Your task to perform on an android device: change keyboard looks Image 0: 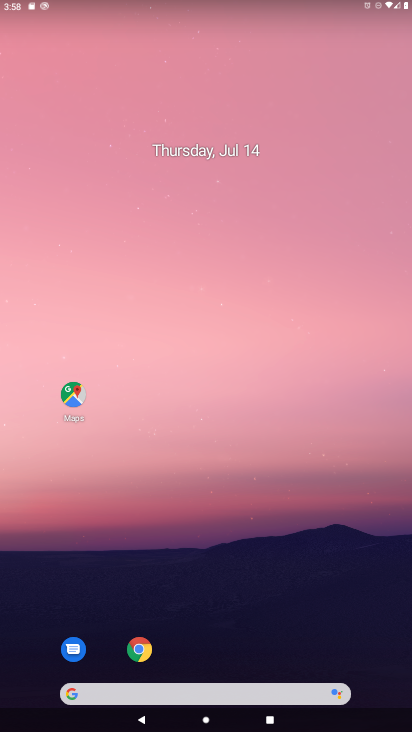
Step 0: drag from (242, 619) to (242, 162)
Your task to perform on an android device: change keyboard looks Image 1: 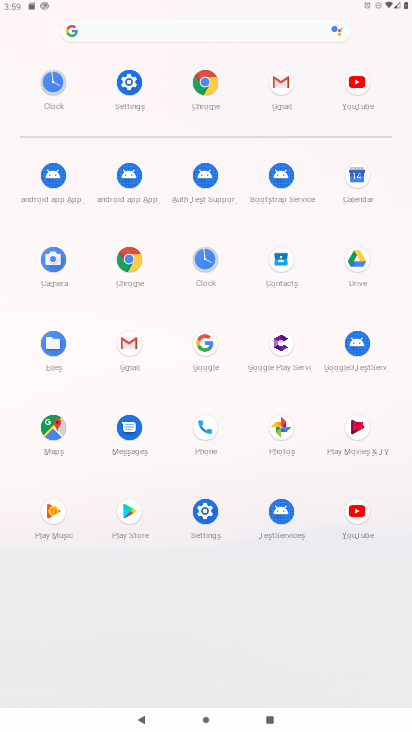
Step 1: click (204, 524)
Your task to perform on an android device: change keyboard looks Image 2: 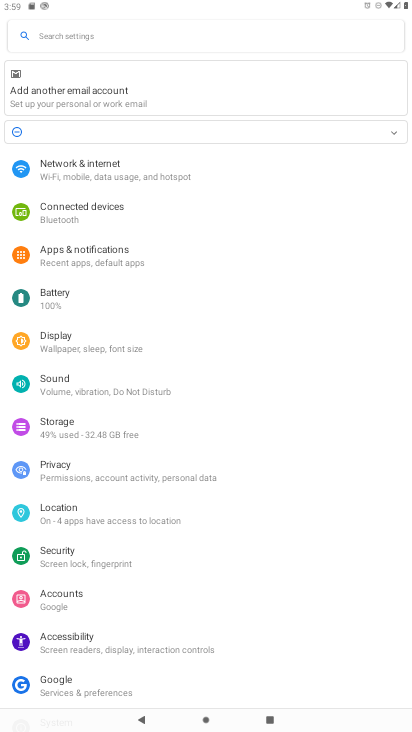
Step 2: drag from (85, 603) to (142, 320)
Your task to perform on an android device: change keyboard looks Image 3: 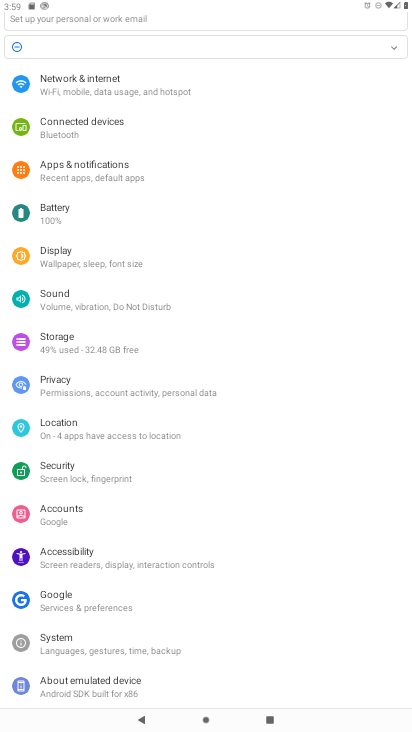
Step 3: drag from (121, 622) to (124, 474)
Your task to perform on an android device: change keyboard looks Image 4: 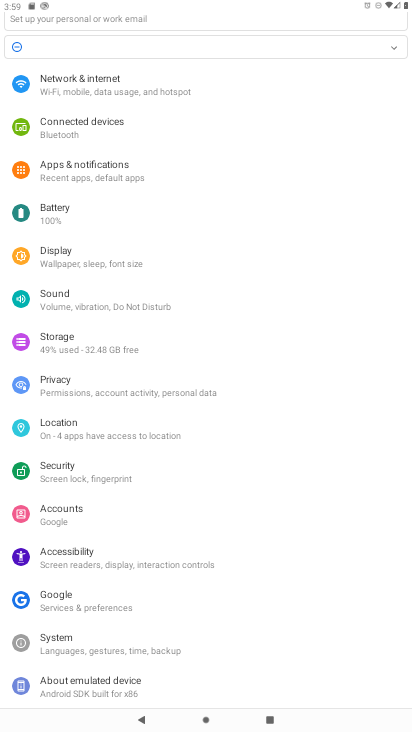
Step 4: click (96, 647)
Your task to perform on an android device: change keyboard looks Image 5: 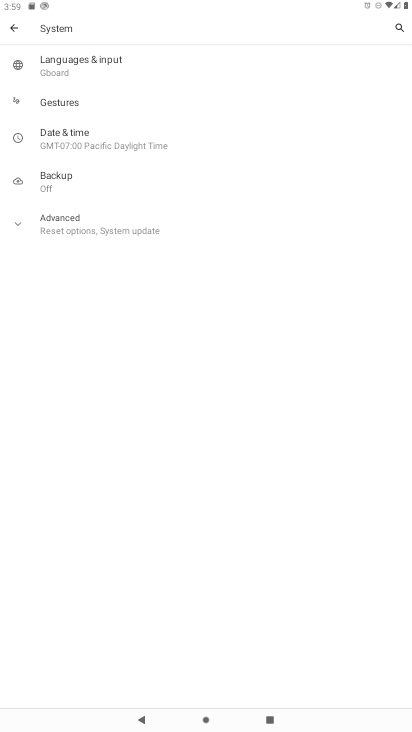
Step 5: click (106, 63)
Your task to perform on an android device: change keyboard looks Image 6: 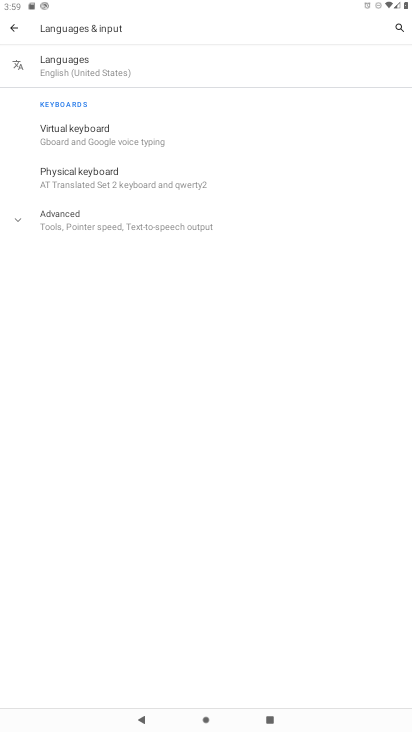
Step 6: click (110, 139)
Your task to perform on an android device: change keyboard looks Image 7: 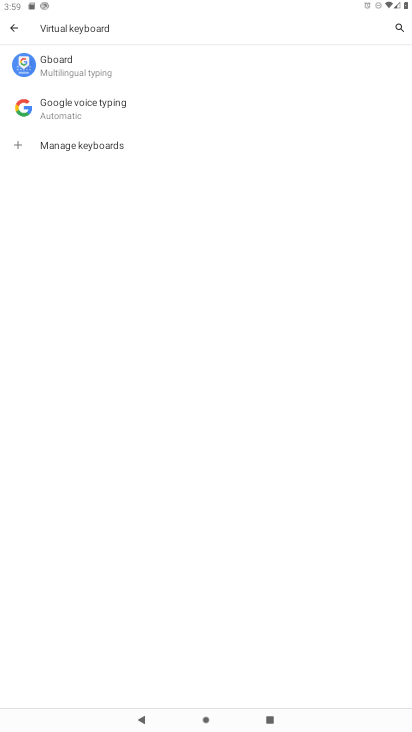
Step 7: click (72, 74)
Your task to perform on an android device: change keyboard looks Image 8: 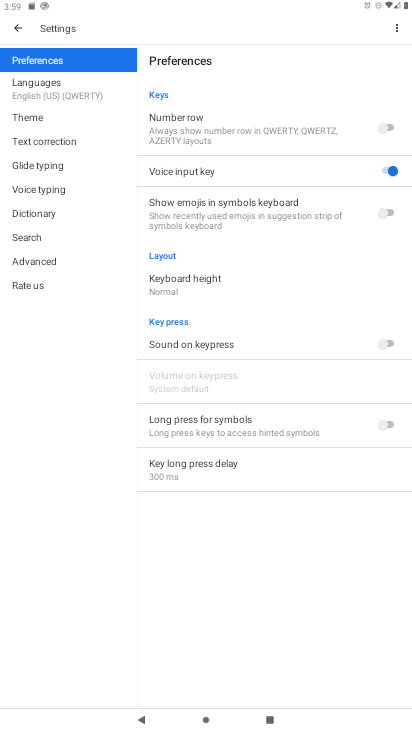
Step 8: click (58, 123)
Your task to perform on an android device: change keyboard looks Image 9: 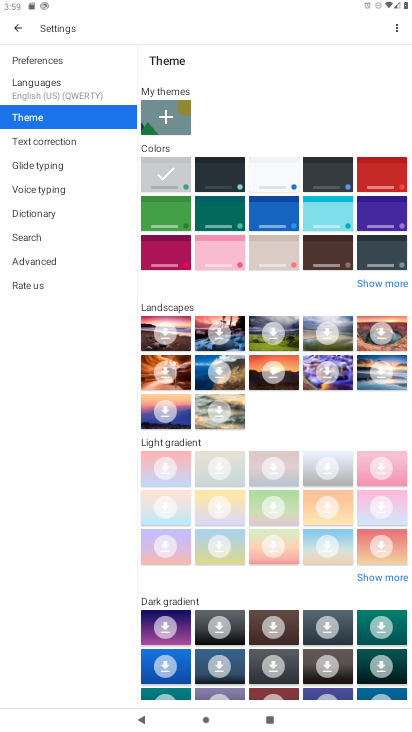
Step 9: click (223, 172)
Your task to perform on an android device: change keyboard looks Image 10: 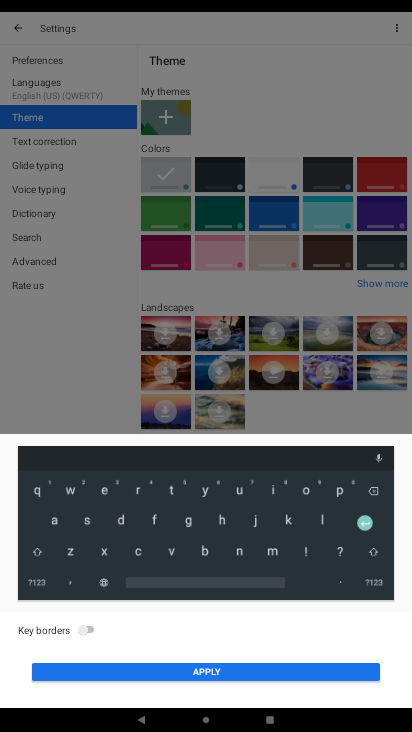
Step 10: click (241, 665)
Your task to perform on an android device: change keyboard looks Image 11: 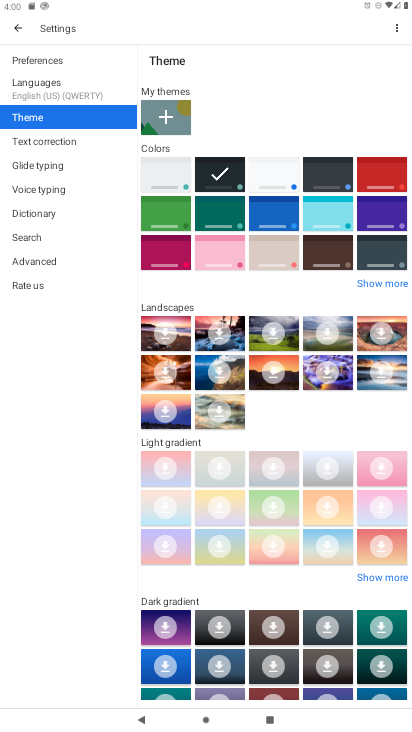
Step 11: task complete